Your task to perform on an android device: toggle improve location accuracy Image 0: 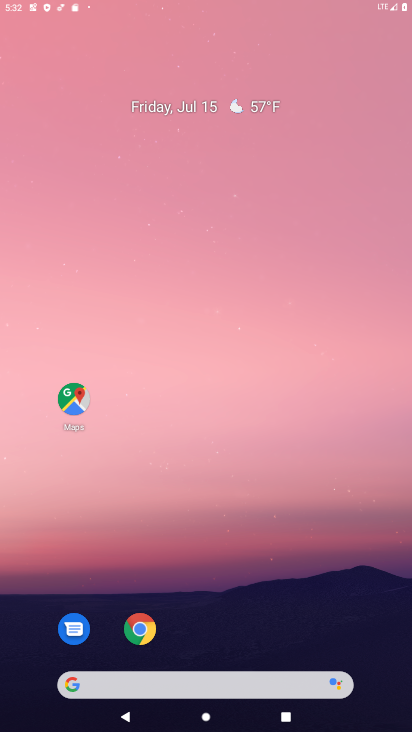
Step 0: press home button
Your task to perform on an android device: toggle improve location accuracy Image 1: 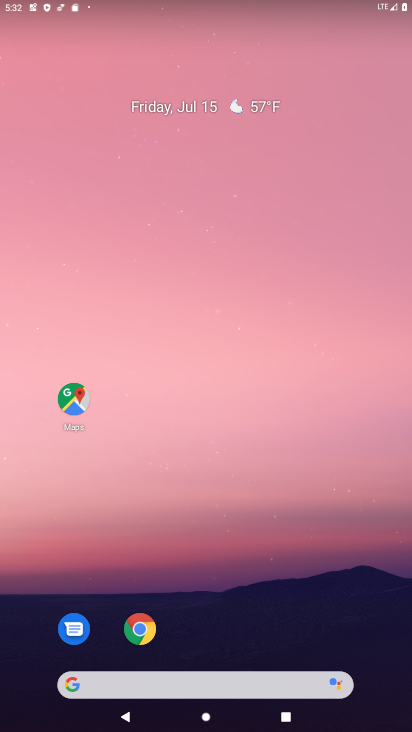
Step 1: drag from (248, 648) to (269, 82)
Your task to perform on an android device: toggle improve location accuracy Image 2: 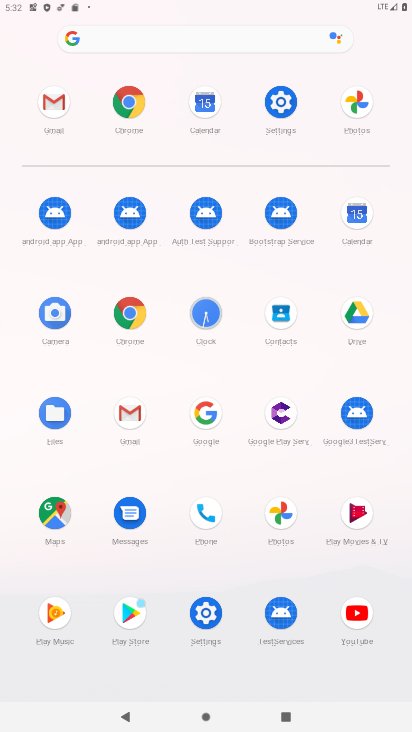
Step 2: click (279, 105)
Your task to perform on an android device: toggle improve location accuracy Image 3: 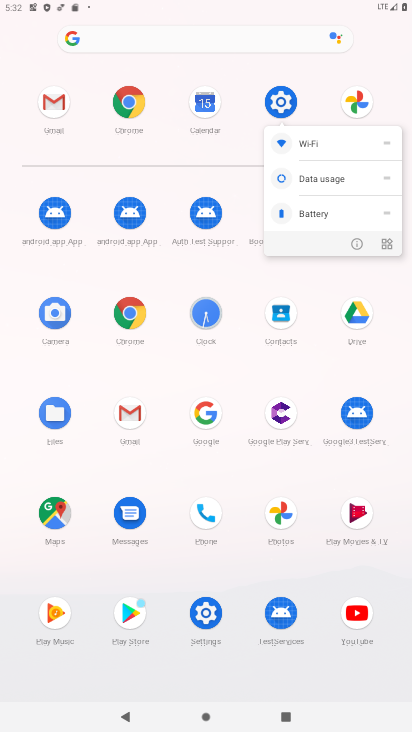
Step 3: click (279, 105)
Your task to perform on an android device: toggle improve location accuracy Image 4: 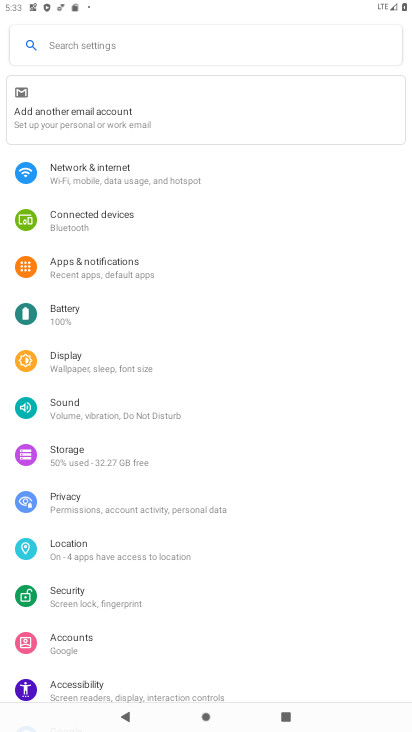
Step 4: click (77, 545)
Your task to perform on an android device: toggle improve location accuracy Image 5: 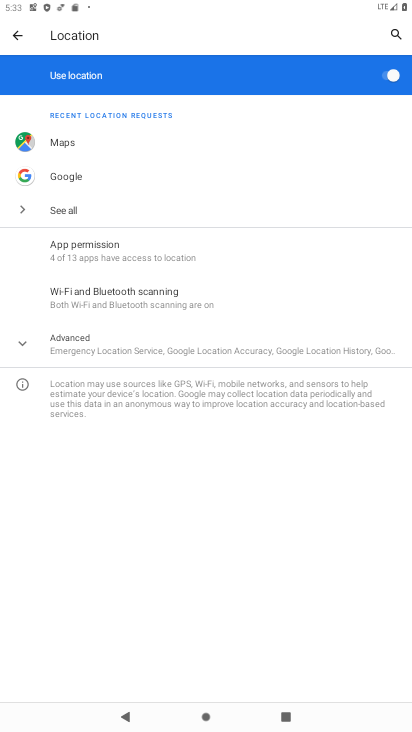
Step 5: click (71, 343)
Your task to perform on an android device: toggle improve location accuracy Image 6: 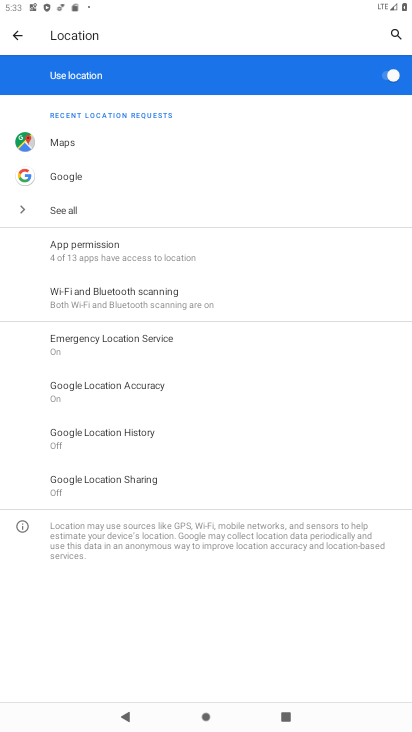
Step 6: click (117, 386)
Your task to perform on an android device: toggle improve location accuracy Image 7: 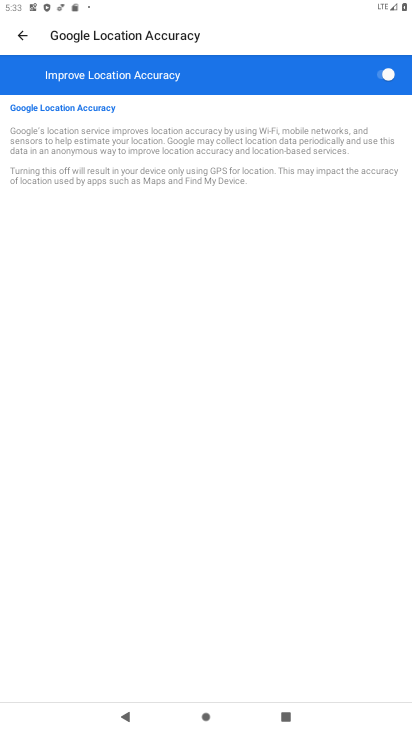
Step 7: click (389, 72)
Your task to perform on an android device: toggle improve location accuracy Image 8: 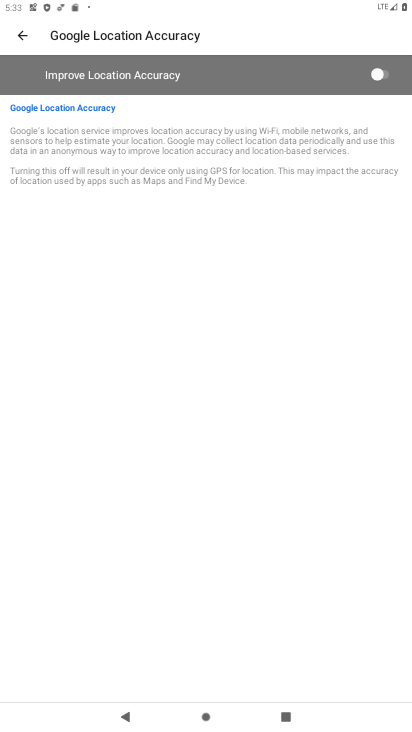
Step 8: task complete